Your task to perform on an android device: change the clock display to analog Image 0: 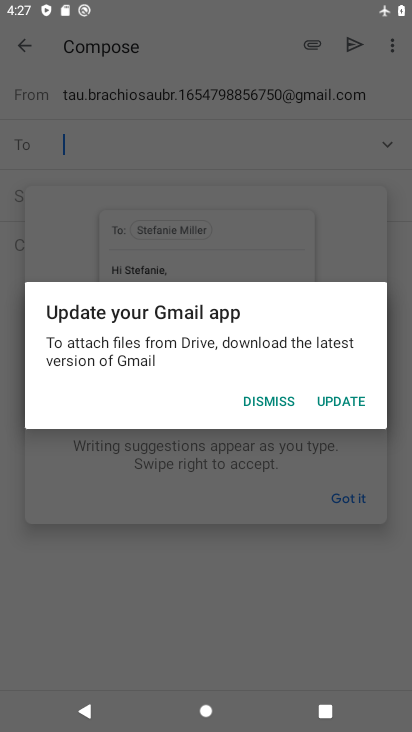
Step 0: press home button
Your task to perform on an android device: change the clock display to analog Image 1: 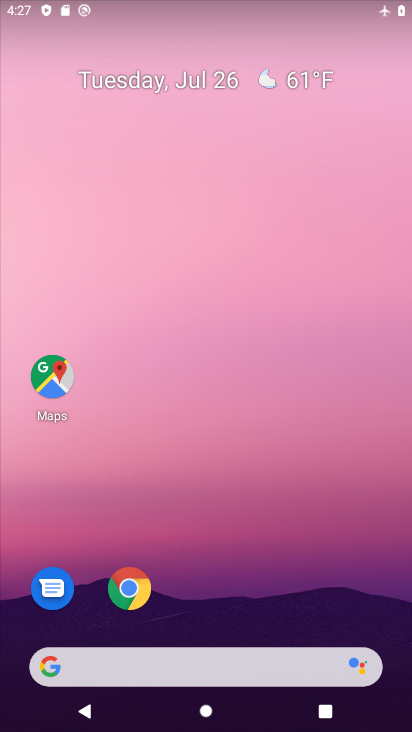
Step 1: drag from (309, 547) to (294, 26)
Your task to perform on an android device: change the clock display to analog Image 2: 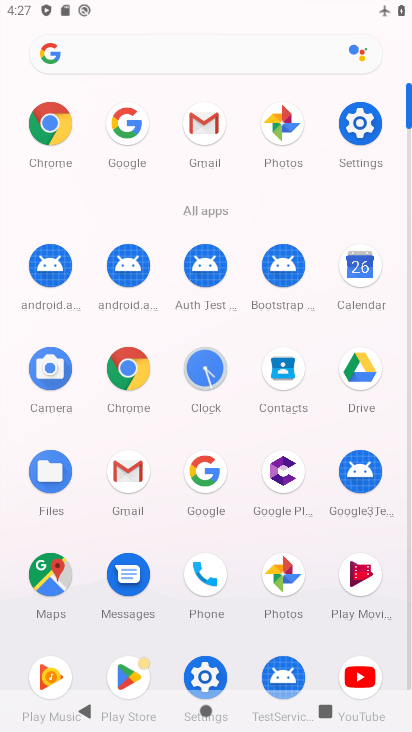
Step 2: click (212, 369)
Your task to perform on an android device: change the clock display to analog Image 3: 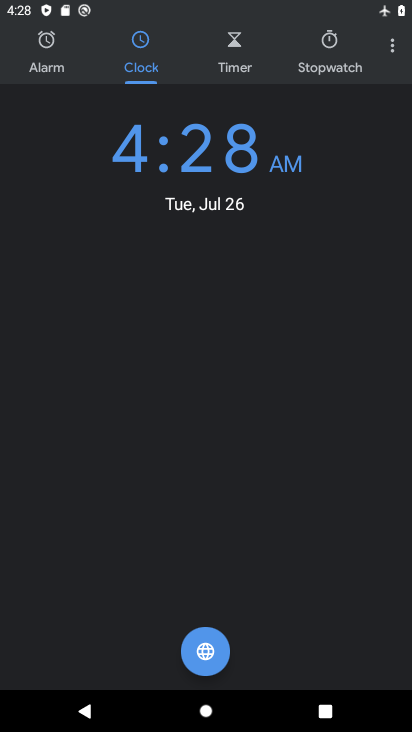
Step 3: click (386, 44)
Your task to perform on an android device: change the clock display to analog Image 4: 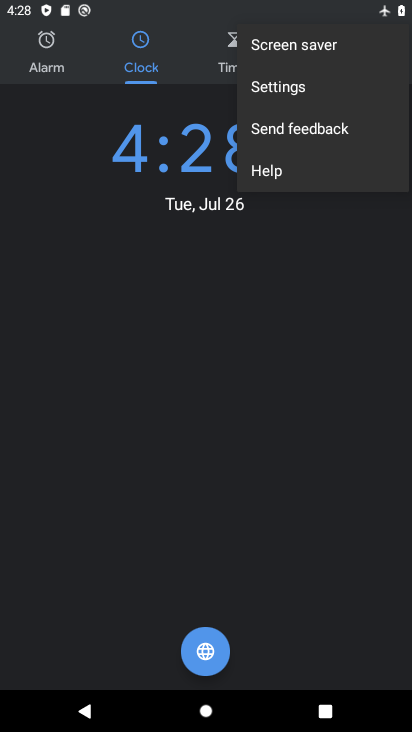
Step 4: click (299, 91)
Your task to perform on an android device: change the clock display to analog Image 5: 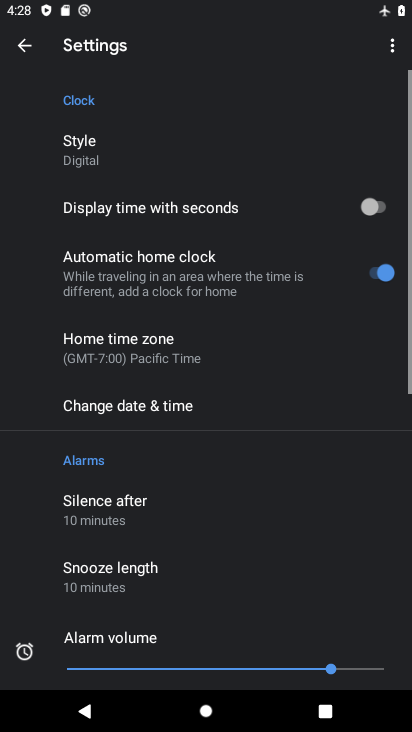
Step 5: click (90, 147)
Your task to perform on an android device: change the clock display to analog Image 6: 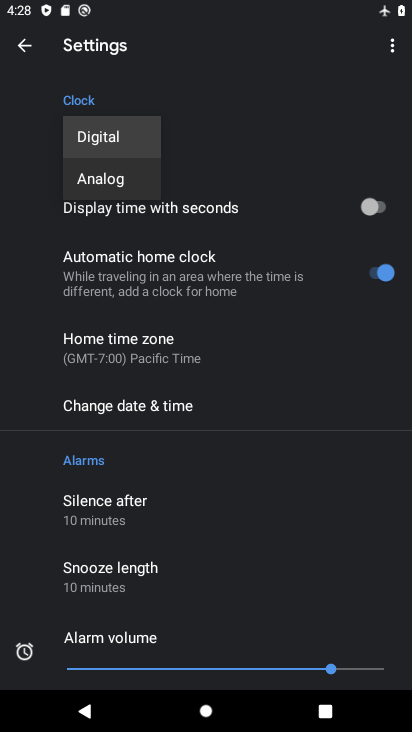
Step 6: click (109, 187)
Your task to perform on an android device: change the clock display to analog Image 7: 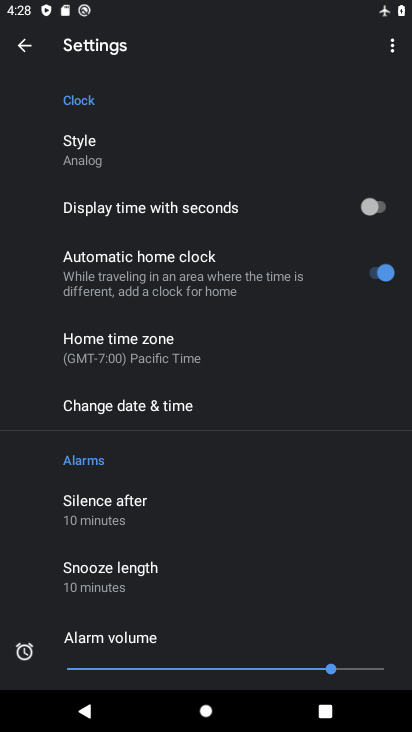
Step 7: task complete